Your task to perform on an android device: Open Wikipedia Image 0: 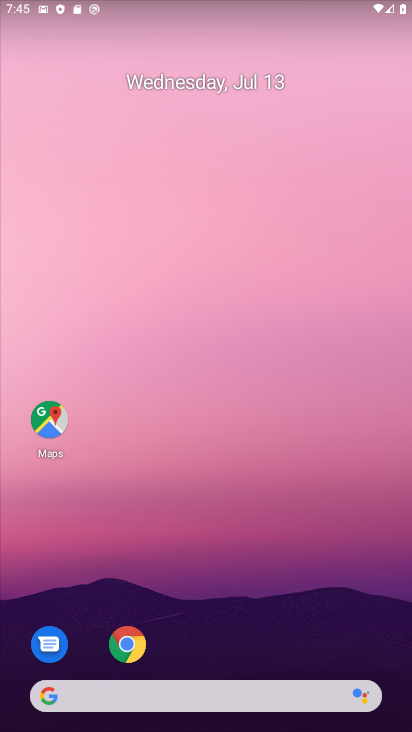
Step 0: click (139, 653)
Your task to perform on an android device: Open Wikipedia Image 1: 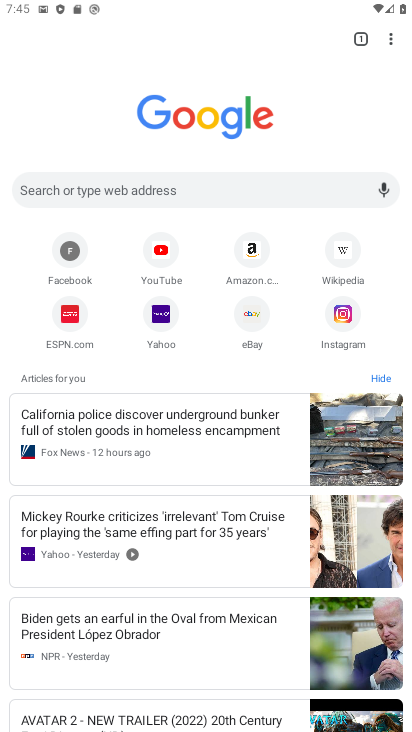
Step 1: click (348, 262)
Your task to perform on an android device: Open Wikipedia Image 2: 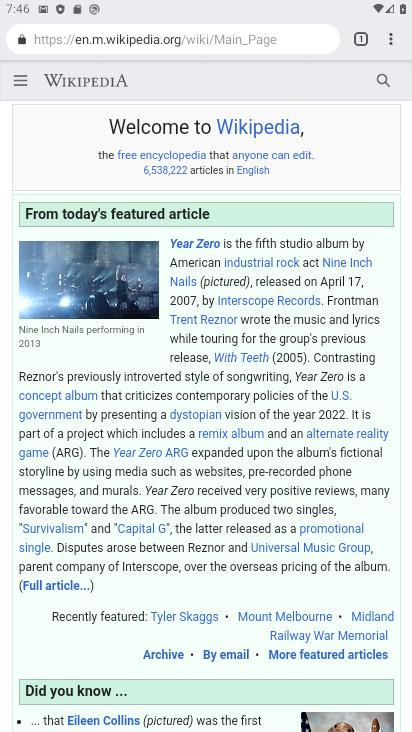
Step 2: task complete